Your task to perform on an android device: Open internet settings Image 0: 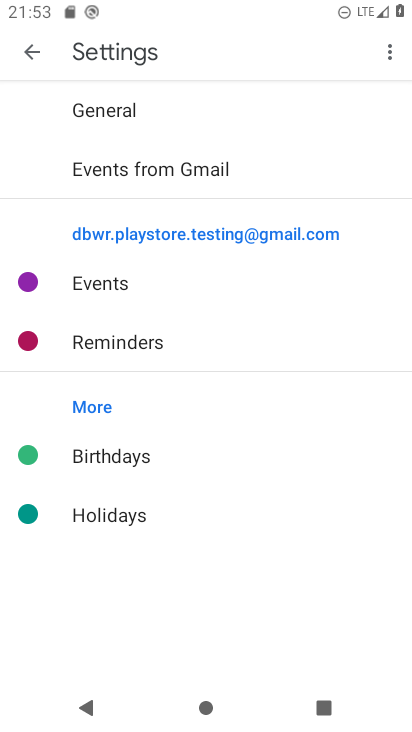
Step 0: press home button
Your task to perform on an android device: Open internet settings Image 1: 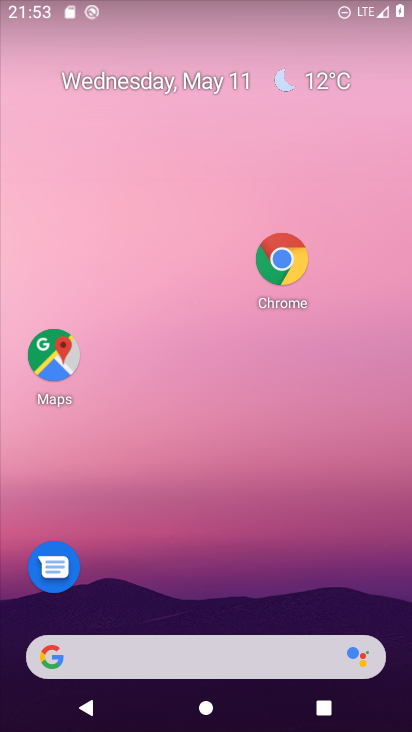
Step 1: drag from (201, 634) to (307, 91)
Your task to perform on an android device: Open internet settings Image 2: 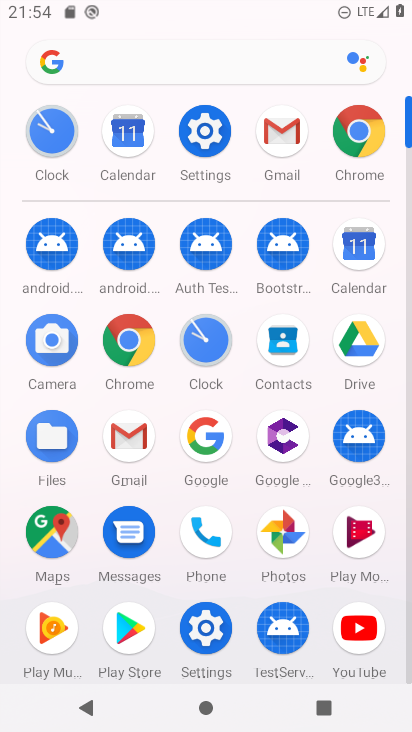
Step 2: click (209, 128)
Your task to perform on an android device: Open internet settings Image 3: 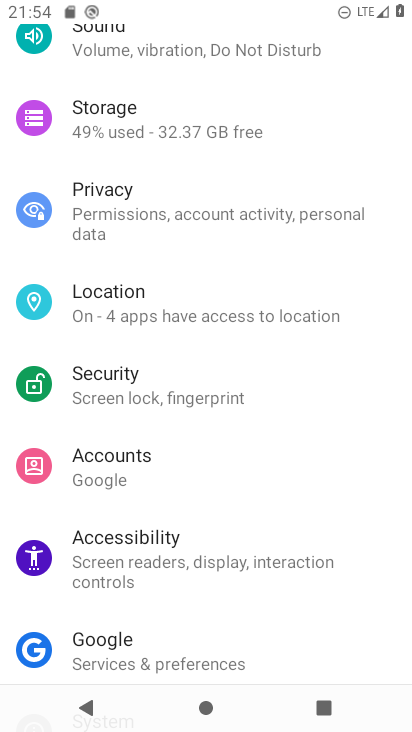
Step 3: drag from (264, 119) to (214, 601)
Your task to perform on an android device: Open internet settings Image 4: 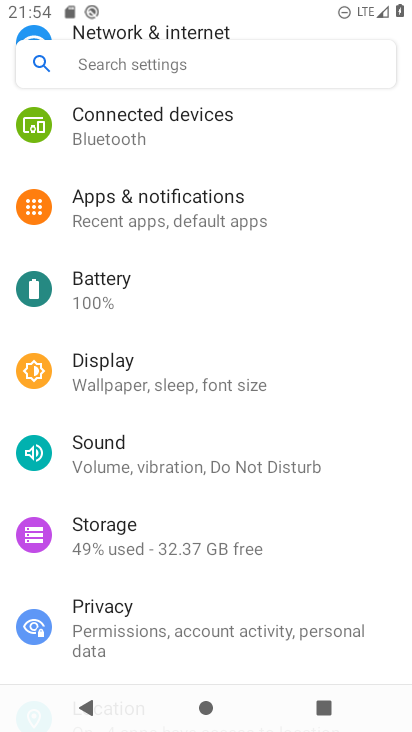
Step 4: drag from (290, 207) to (235, 604)
Your task to perform on an android device: Open internet settings Image 5: 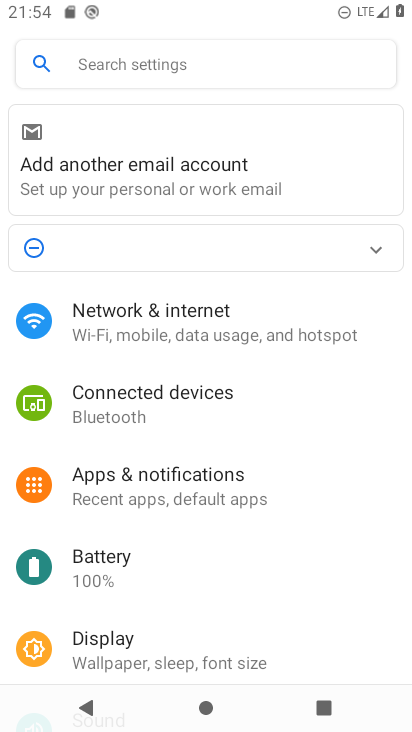
Step 5: click (192, 321)
Your task to perform on an android device: Open internet settings Image 6: 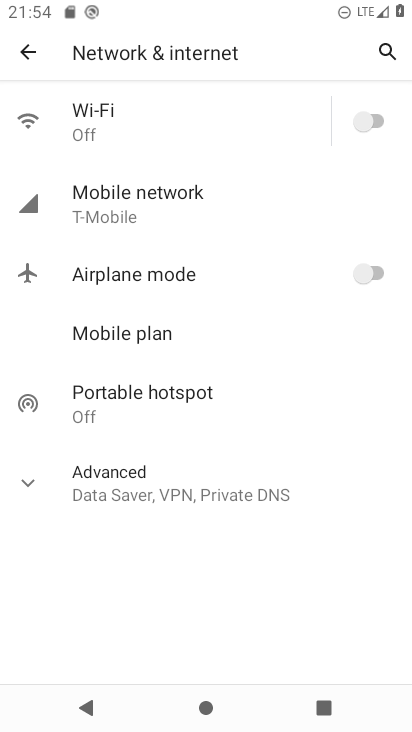
Step 6: task complete